Your task to perform on an android device: Open battery settings Image 0: 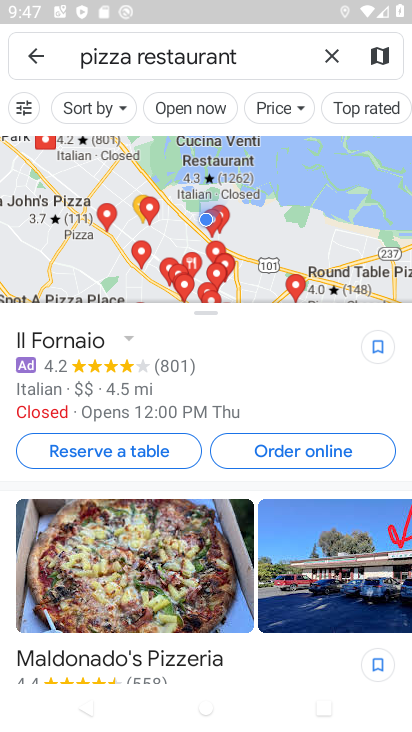
Step 0: press home button
Your task to perform on an android device: Open battery settings Image 1: 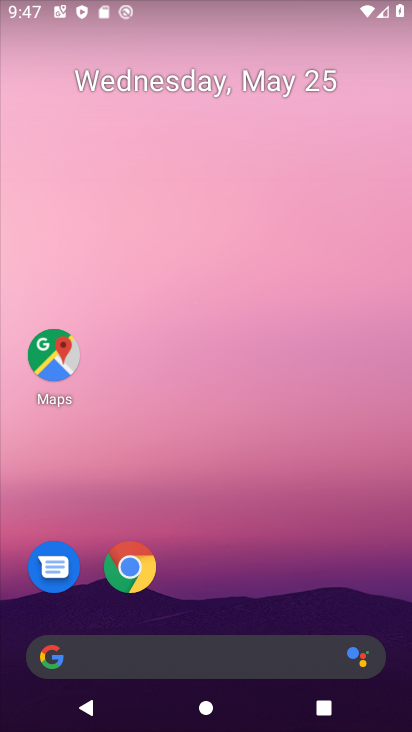
Step 1: drag from (202, 571) to (222, 64)
Your task to perform on an android device: Open battery settings Image 2: 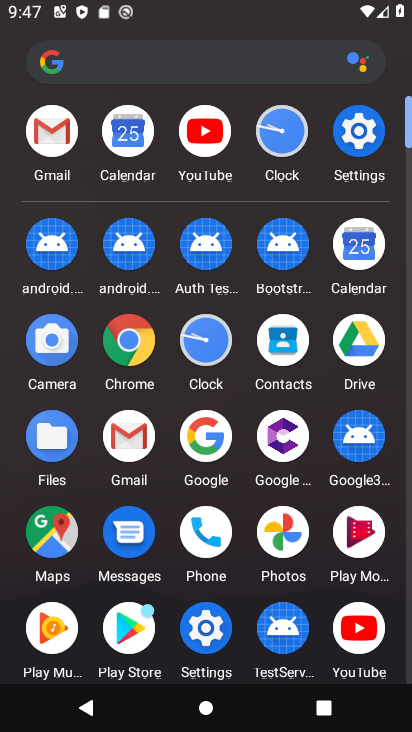
Step 2: click (374, 131)
Your task to perform on an android device: Open battery settings Image 3: 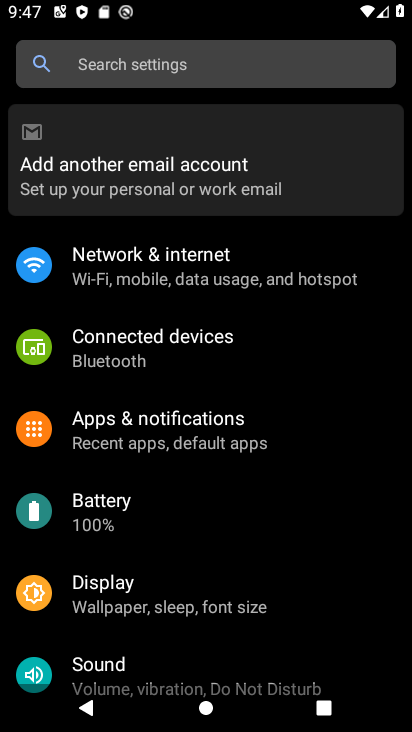
Step 3: click (208, 525)
Your task to perform on an android device: Open battery settings Image 4: 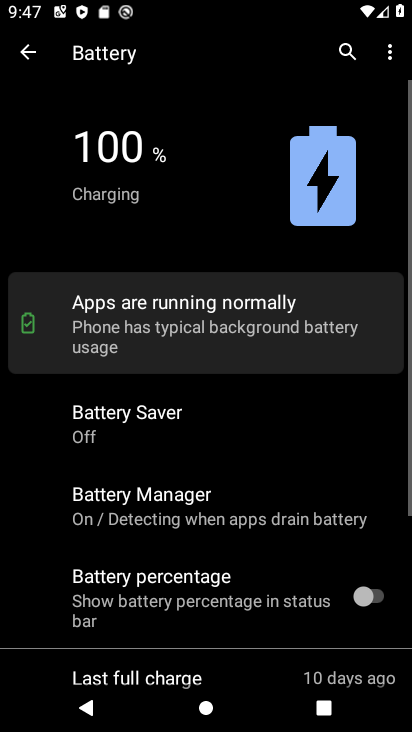
Step 4: task complete